Your task to perform on an android device: Go to internet settings Image 0: 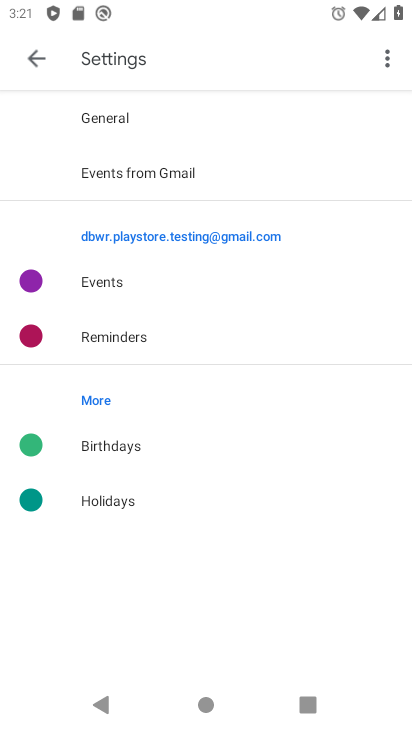
Step 0: press back button
Your task to perform on an android device: Go to internet settings Image 1: 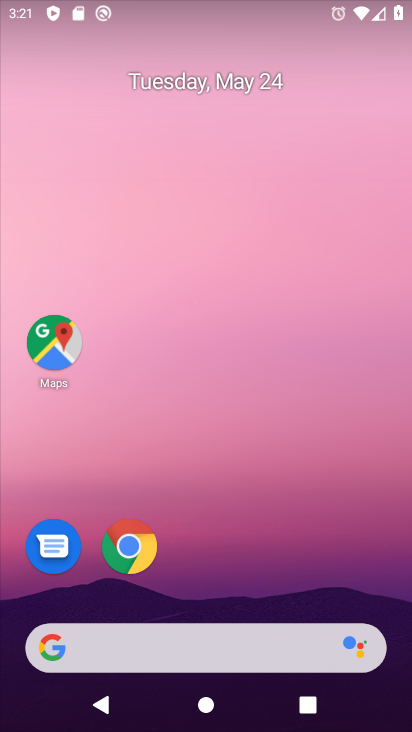
Step 1: drag from (248, 522) to (228, 318)
Your task to perform on an android device: Go to internet settings Image 2: 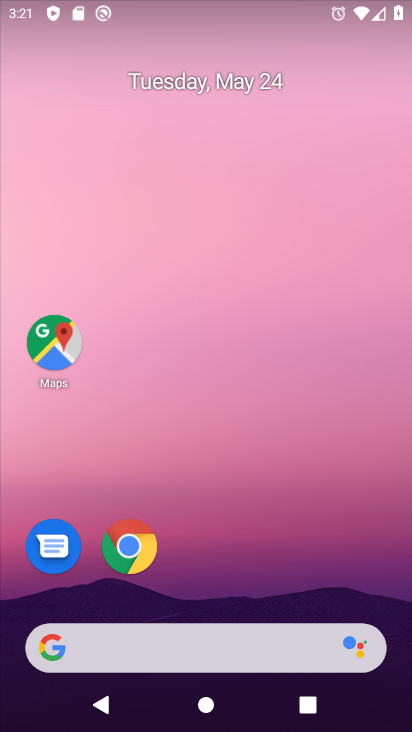
Step 2: drag from (268, 561) to (236, 291)
Your task to perform on an android device: Go to internet settings Image 3: 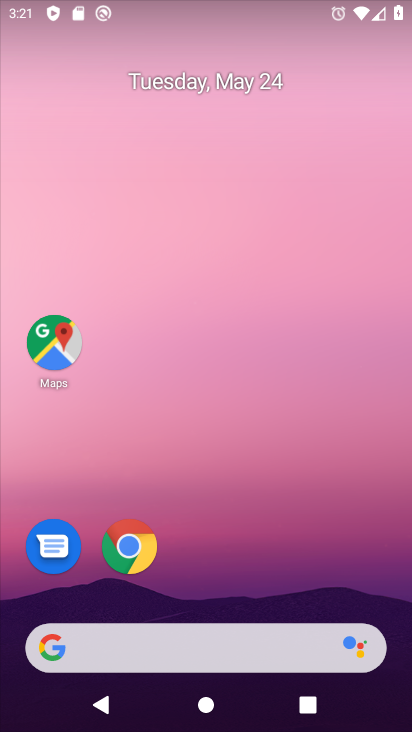
Step 3: drag from (322, 597) to (278, 266)
Your task to perform on an android device: Go to internet settings Image 4: 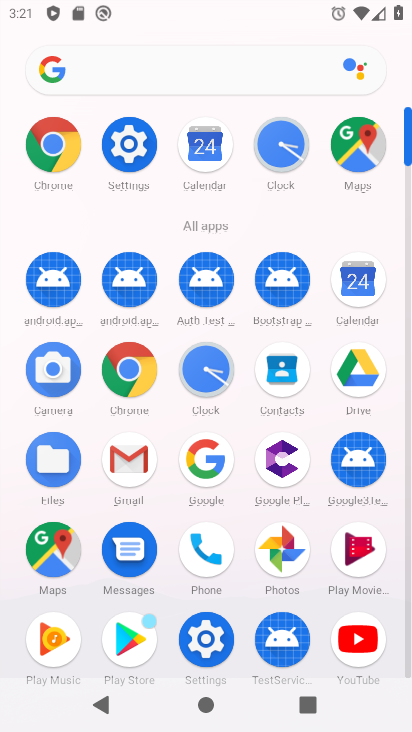
Step 4: click (132, 152)
Your task to perform on an android device: Go to internet settings Image 5: 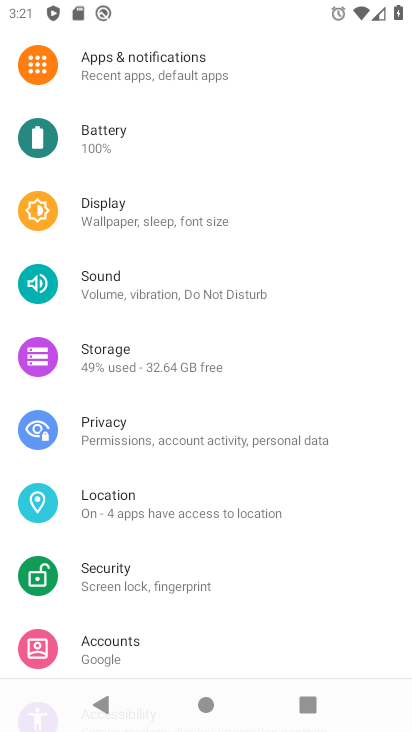
Step 5: drag from (127, 108) to (245, 543)
Your task to perform on an android device: Go to internet settings Image 6: 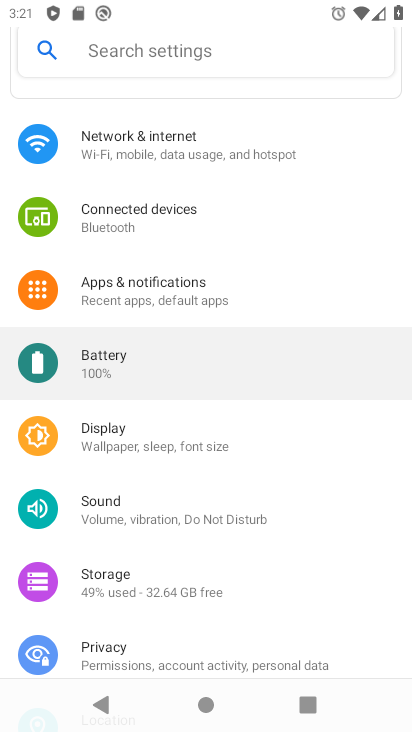
Step 6: drag from (199, 170) to (283, 589)
Your task to perform on an android device: Go to internet settings Image 7: 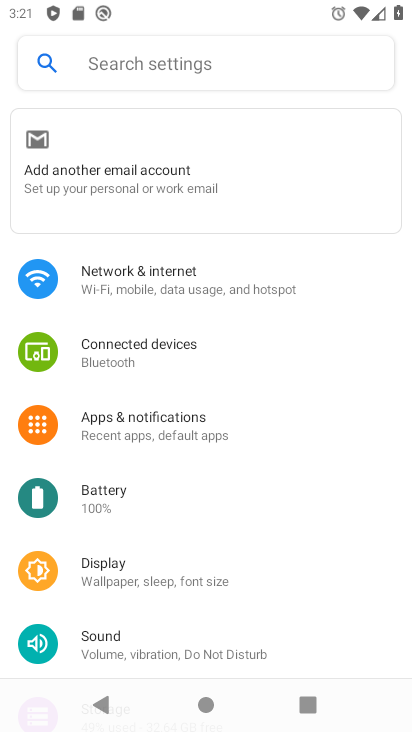
Step 7: click (141, 268)
Your task to perform on an android device: Go to internet settings Image 8: 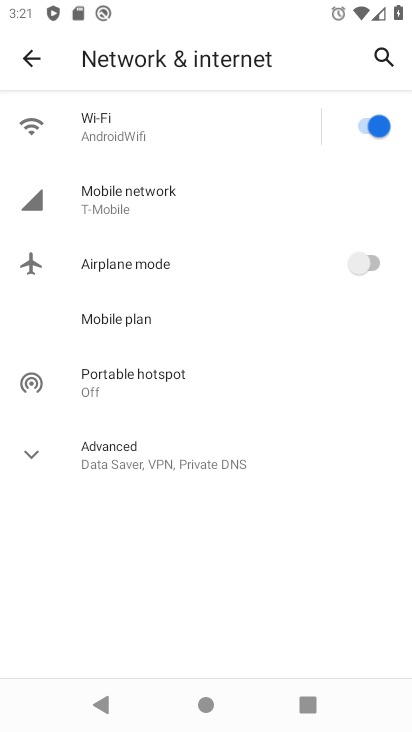
Step 8: task complete